Your task to perform on an android device: move an email to a new category in the gmail app Image 0: 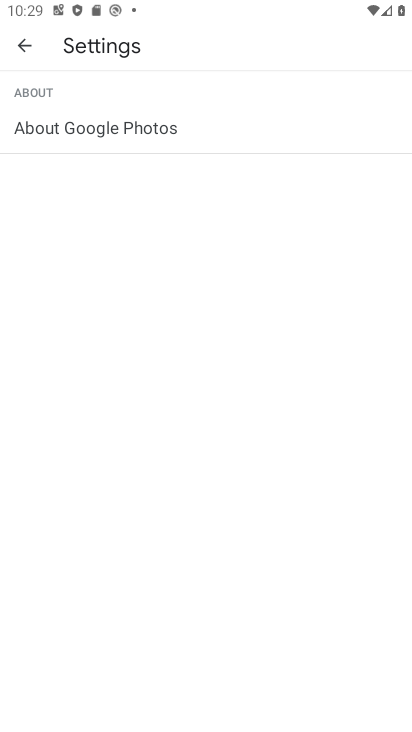
Step 0: press home button
Your task to perform on an android device: move an email to a new category in the gmail app Image 1: 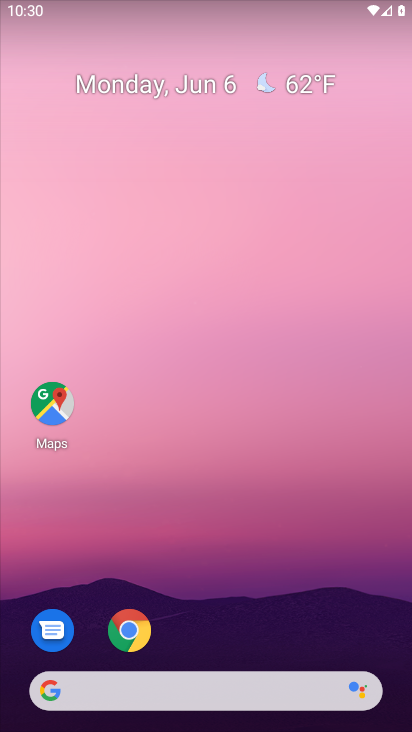
Step 1: drag from (331, 620) to (324, 92)
Your task to perform on an android device: move an email to a new category in the gmail app Image 2: 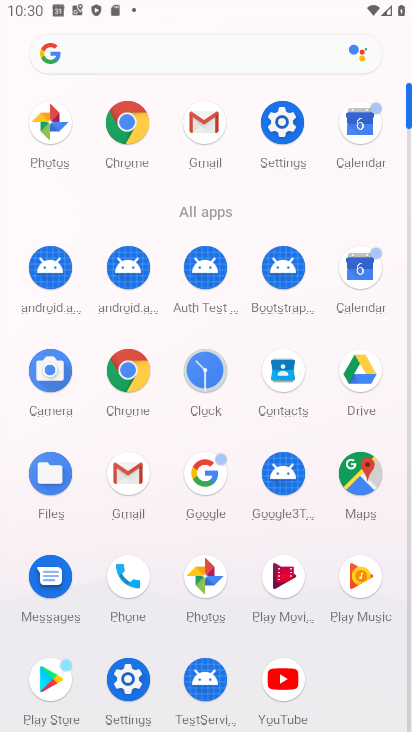
Step 2: click (128, 504)
Your task to perform on an android device: move an email to a new category in the gmail app Image 3: 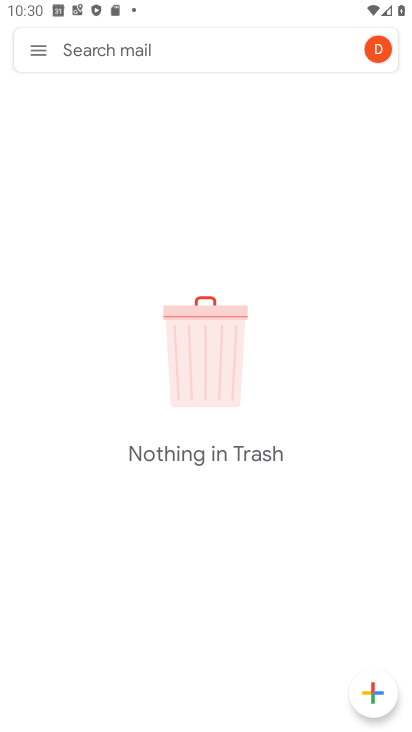
Step 3: click (27, 54)
Your task to perform on an android device: move an email to a new category in the gmail app Image 4: 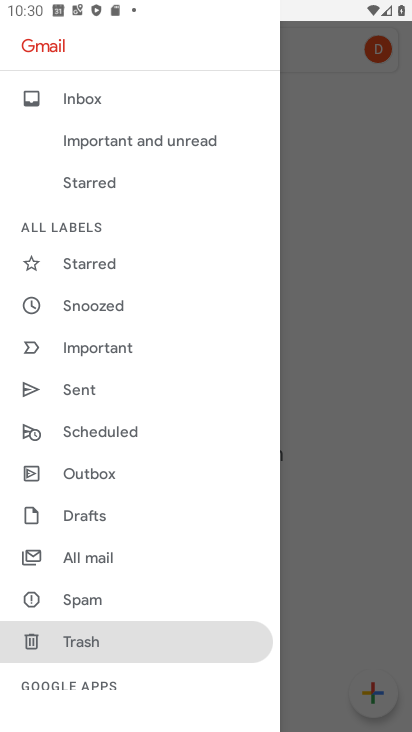
Step 4: click (109, 554)
Your task to perform on an android device: move an email to a new category in the gmail app Image 5: 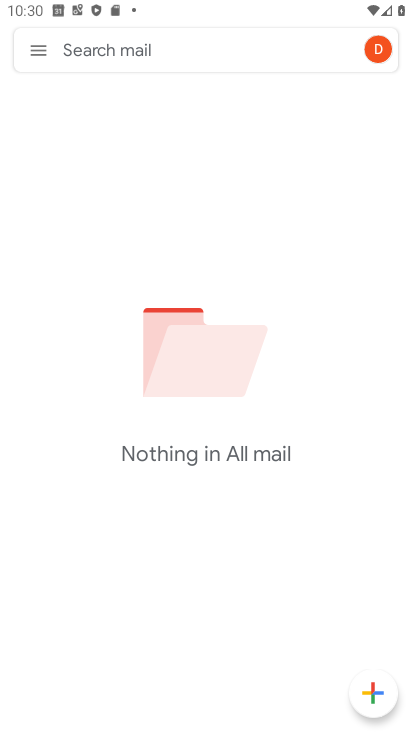
Step 5: task complete